Your task to perform on an android device: remove spam from my inbox in the gmail app Image 0: 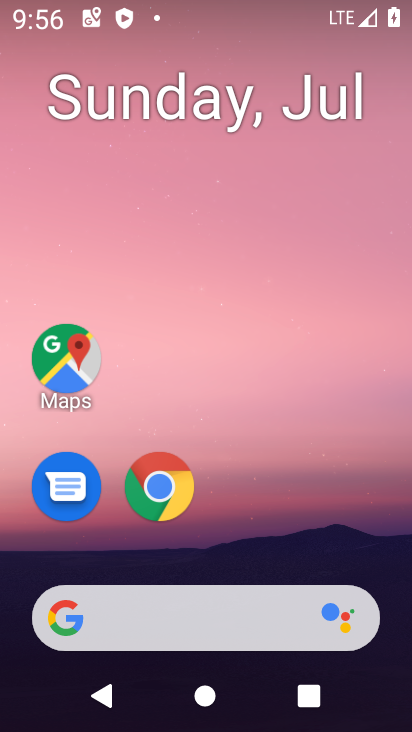
Step 0: press home button
Your task to perform on an android device: remove spam from my inbox in the gmail app Image 1: 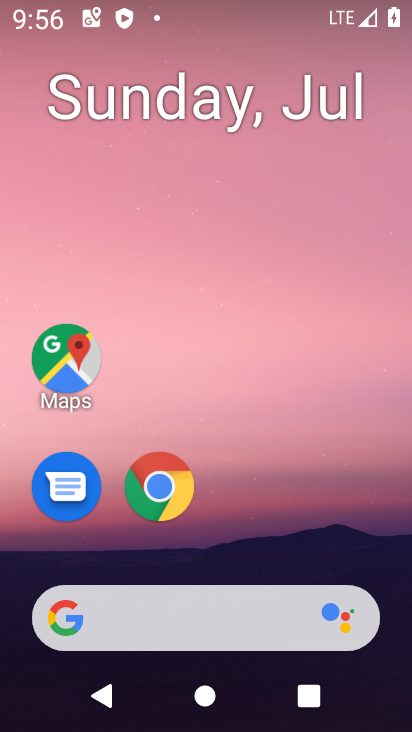
Step 1: drag from (358, 484) to (368, 73)
Your task to perform on an android device: remove spam from my inbox in the gmail app Image 2: 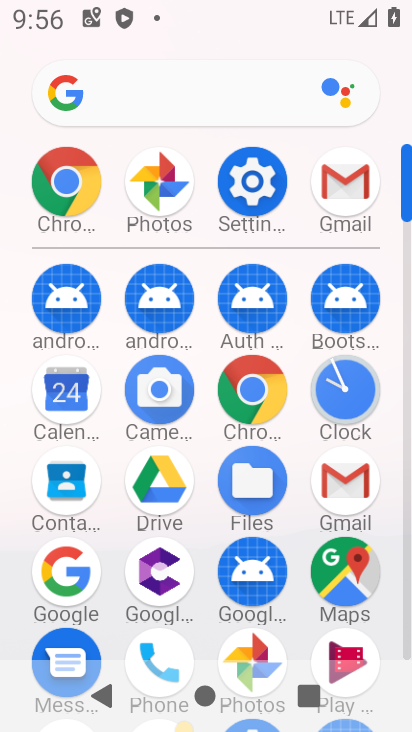
Step 2: click (349, 490)
Your task to perform on an android device: remove spam from my inbox in the gmail app Image 3: 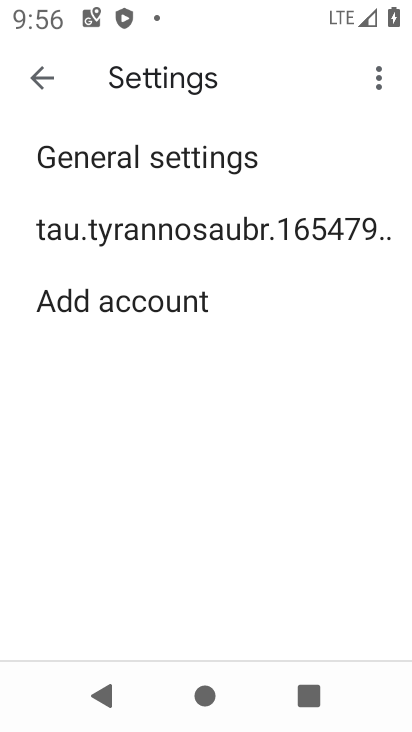
Step 3: press back button
Your task to perform on an android device: remove spam from my inbox in the gmail app Image 4: 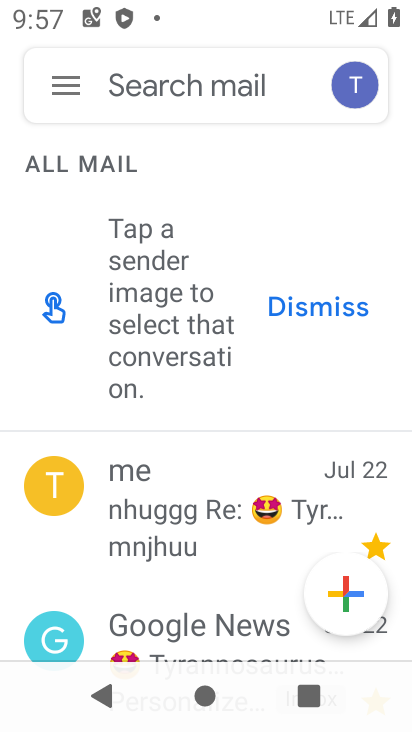
Step 4: click (65, 81)
Your task to perform on an android device: remove spam from my inbox in the gmail app Image 5: 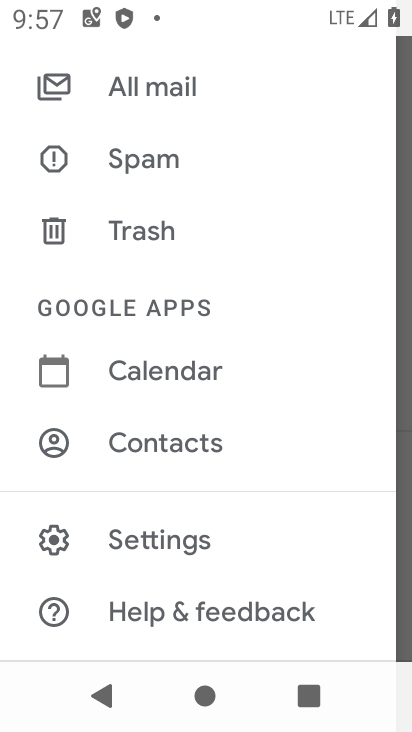
Step 5: drag from (298, 209) to (304, 301)
Your task to perform on an android device: remove spam from my inbox in the gmail app Image 6: 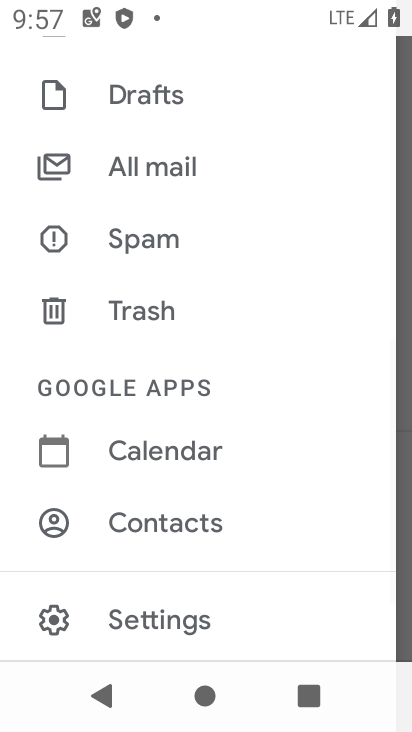
Step 6: drag from (320, 125) to (318, 298)
Your task to perform on an android device: remove spam from my inbox in the gmail app Image 7: 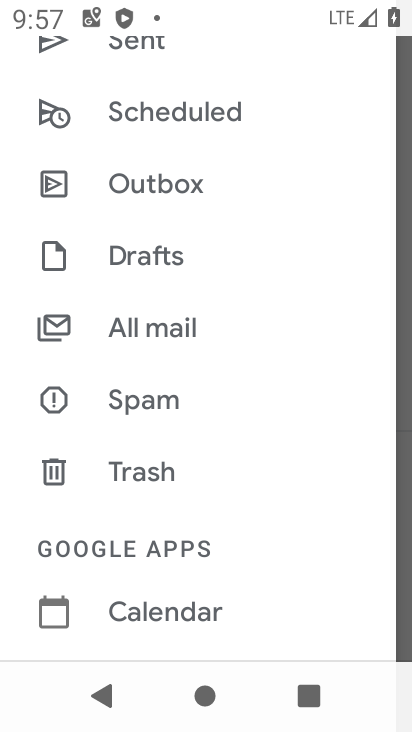
Step 7: drag from (312, 164) to (312, 296)
Your task to perform on an android device: remove spam from my inbox in the gmail app Image 8: 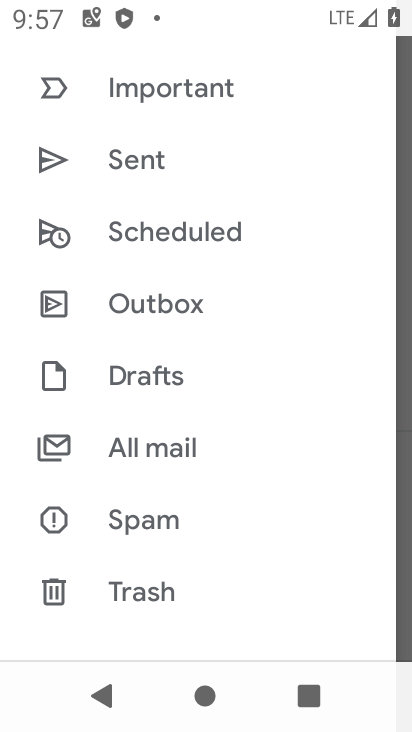
Step 8: click (223, 518)
Your task to perform on an android device: remove spam from my inbox in the gmail app Image 9: 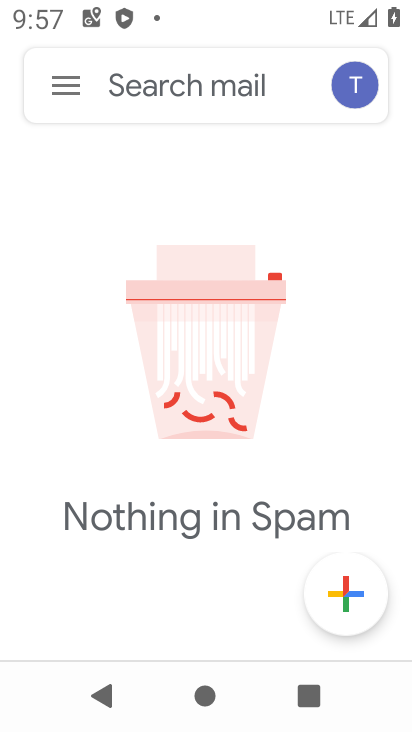
Step 9: task complete